Your task to perform on an android device: What's the weather going to be tomorrow? Image 0: 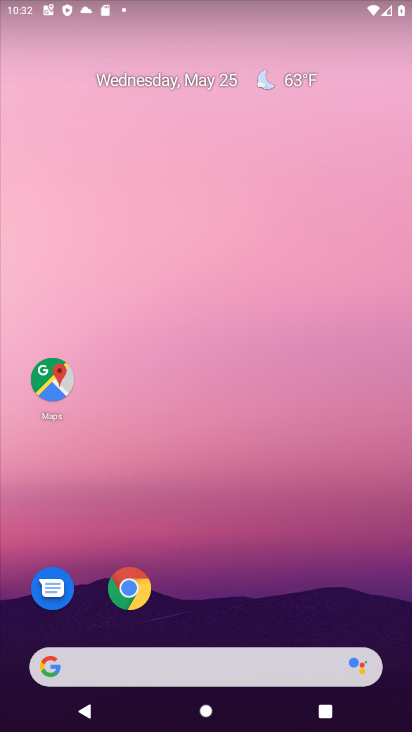
Step 0: click (291, 83)
Your task to perform on an android device: What's the weather going to be tomorrow? Image 1: 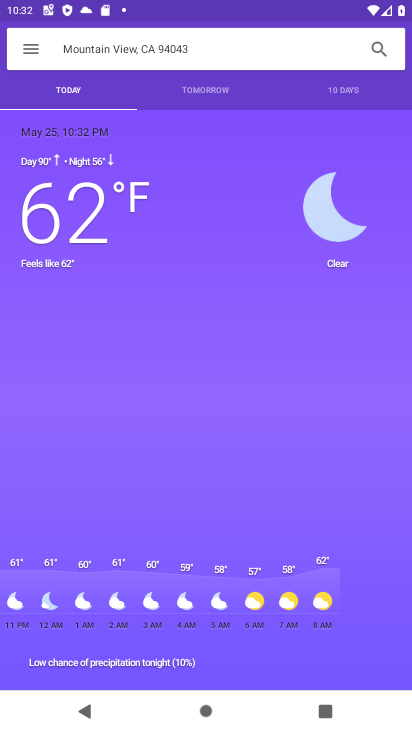
Step 1: click (205, 95)
Your task to perform on an android device: What's the weather going to be tomorrow? Image 2: 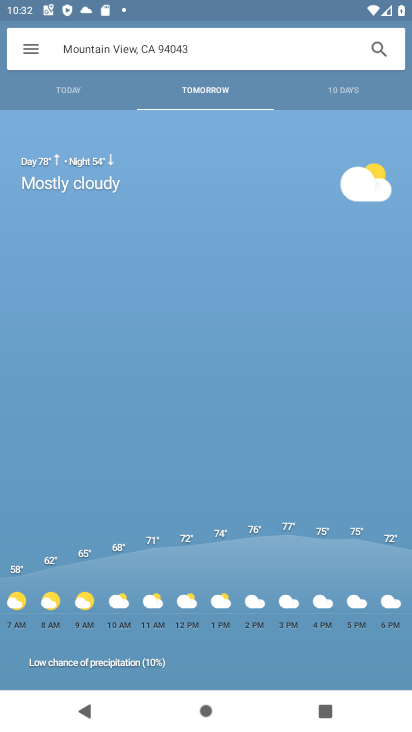
Step 2: task complete